Your task to perform on an android device: Open battery settings Image 0: 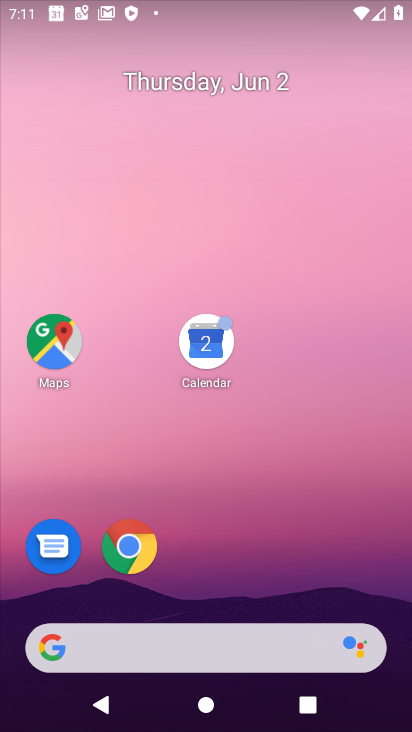
Step 0: drag from (291, 680) to (326, 73)
Your task to perform on an android device: Open battery settings Image 1: 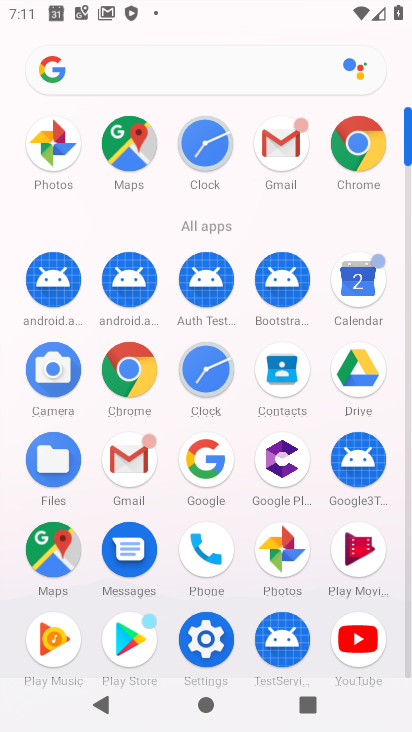
Step 1: click (200, 637)
Your task to perform on an android device: Open battery settings Image 2: 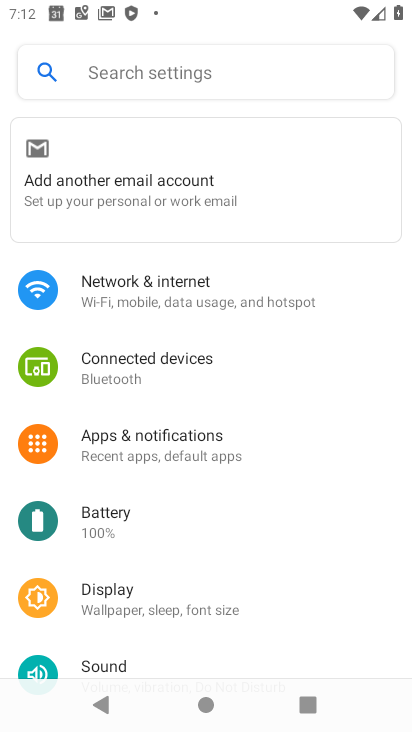
Step 2: click (159, 528)
Your task to perform on an android device: Open battery settings Image 3: 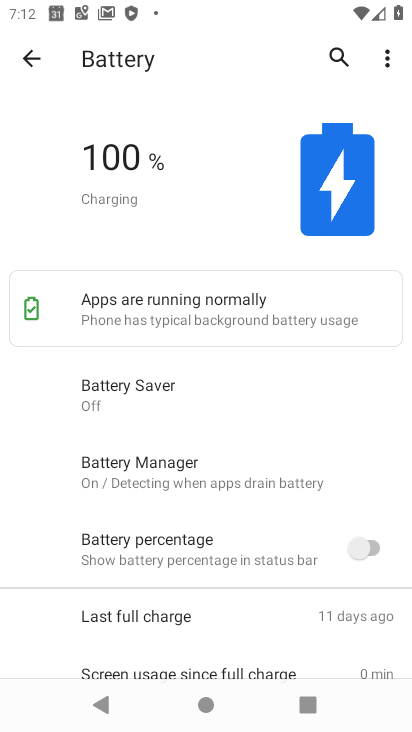
Step 3: task complete